Your task to perform on an android device: toggle notification dots Image 0: 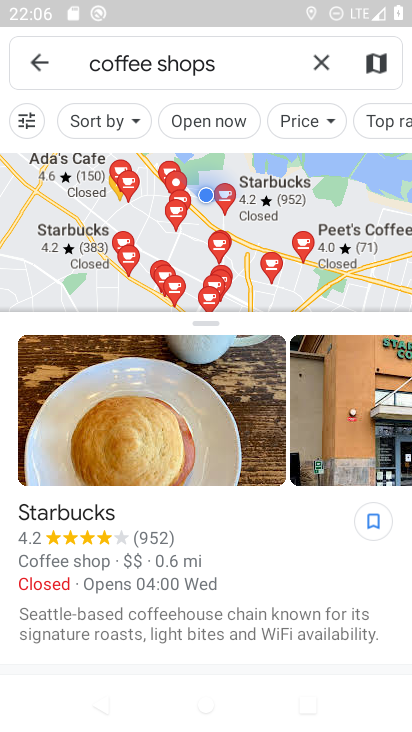
Step 0: click (321, 58)
Your task to perform on an android device: toggle notification dots Image 1: 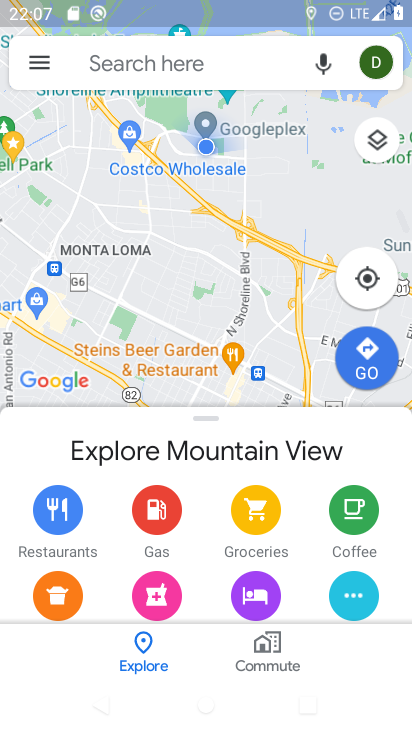
Step 1: press home button
Your task to perform on an android device: toggle notification dots Image 2: 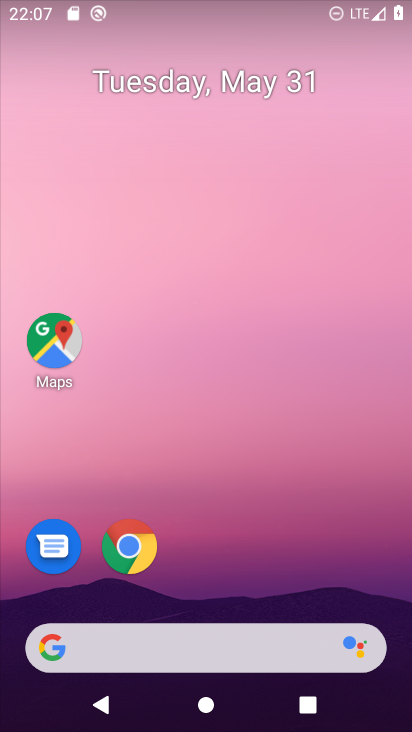
Step 2: drag from (401, 697) to (359, 209)
Your task to perform on an android device: toggle notification dots Image 3: 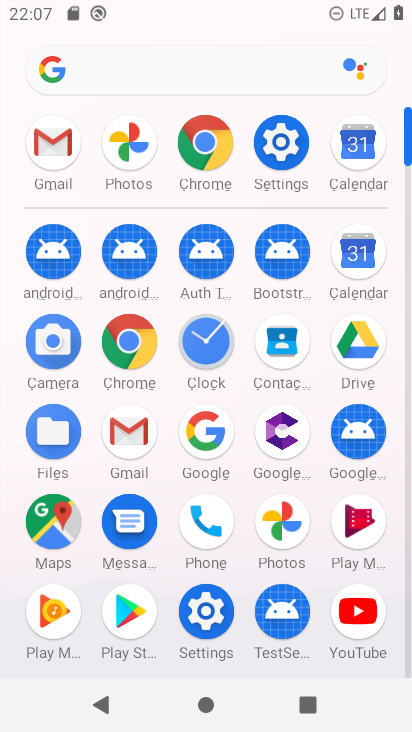
Step 3: click (280, 156)
Your task to perform on an android device: toggle notification dots Image 4: 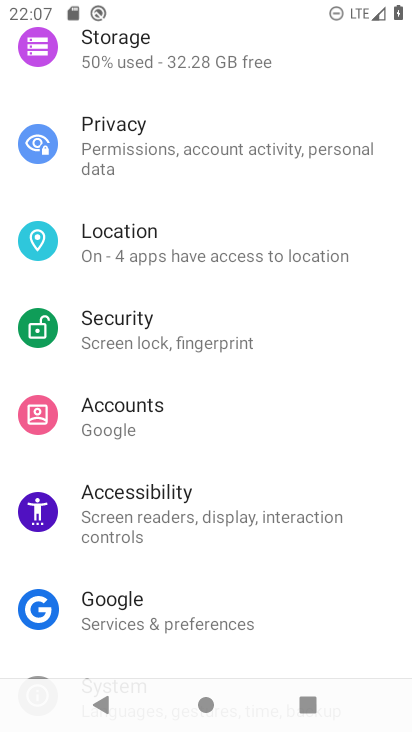
Step 4: drag from (281, 612) to (268, 312)
Your task to perform on an android device: toggle notification dots Image 5: 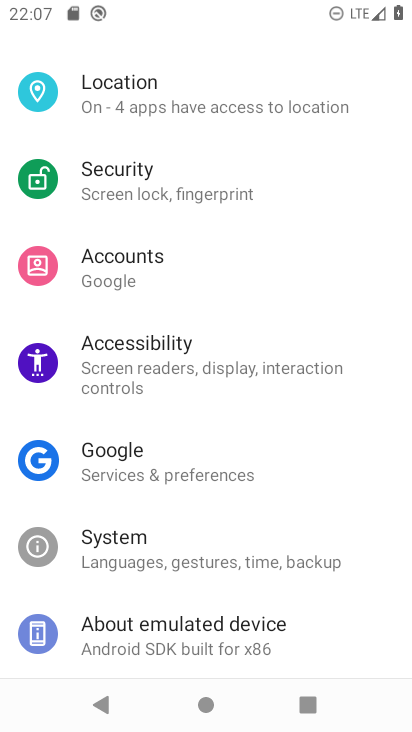
Step 5: drag from (251, 133) to (251, 560)
Your task to perform on an android device: toggle notification dots Image 6: 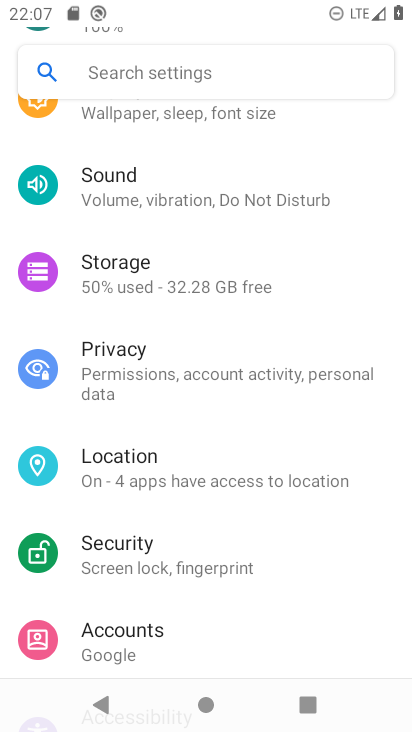
Step 6: drag from (295, 136) to (288, 597)
Your task to perform on an android device: toggle notification dots Image 7: 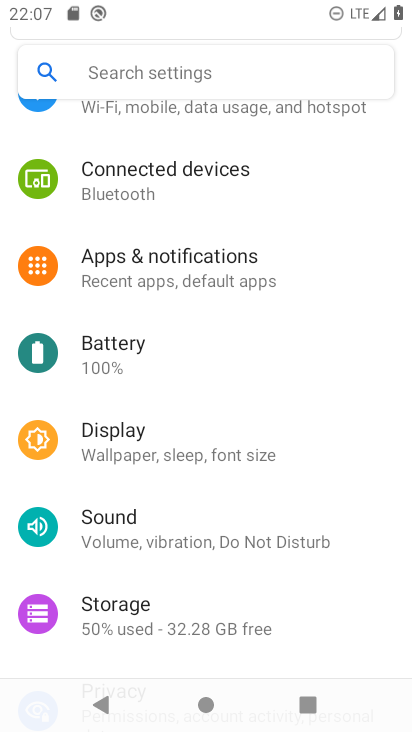
Step 7: click (139, 255)
Your task to perform on an android device: toggle notification dots Image 8: 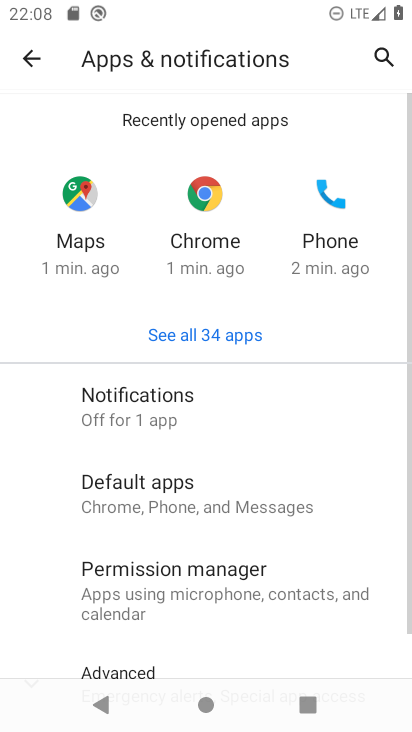
Step 8: click (113, 408)
Your task to perform on an android device: toggle notification dots Image 9: 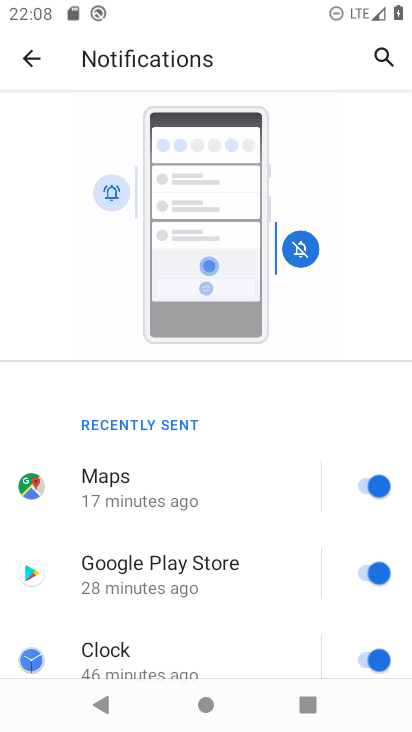
Step 9: drag from (279, 632) to (250, 239)
Your task to perform on an android device: toggle notification dots Image 10: 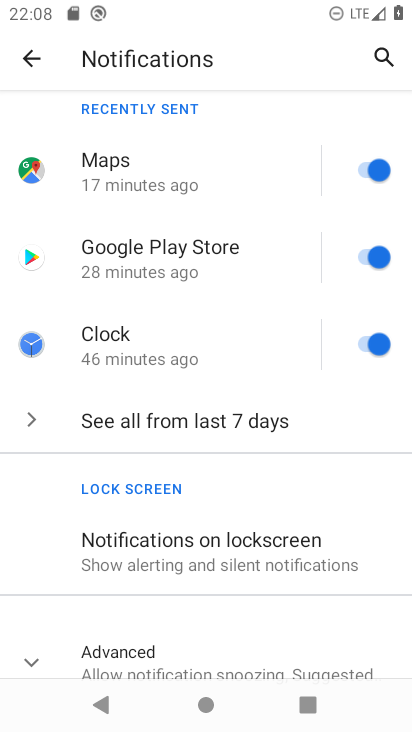
Step 10: drag from (303, 650) to (279, 298)
Your task to perform on an android device: toggle notification dots Image 11: 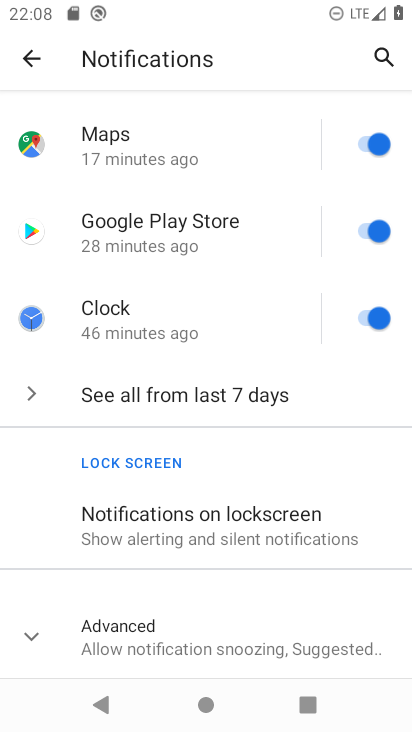
Step 11: drag from (228, 622) to (218, 374)
Your task to perform on an android device: toggle notification dots Image 12: 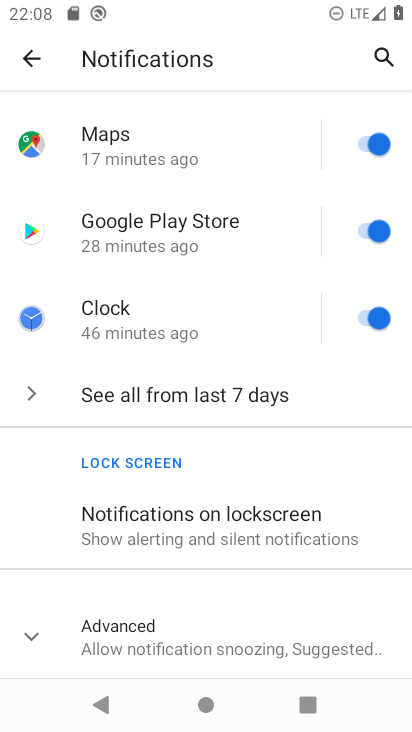
Step 12: click (29, 634)
Your task to perform on an android device: toggle notification dots Image 13: 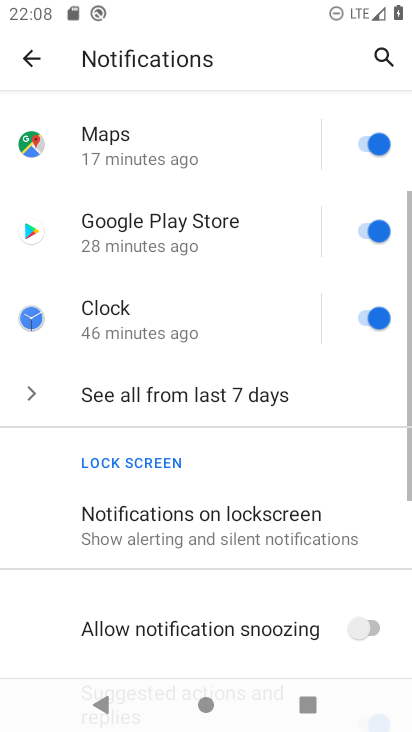
Step 13: drag from (259, 604) to (257, 306)
Your task to perform on an android device: toggle notification dots Image 14: 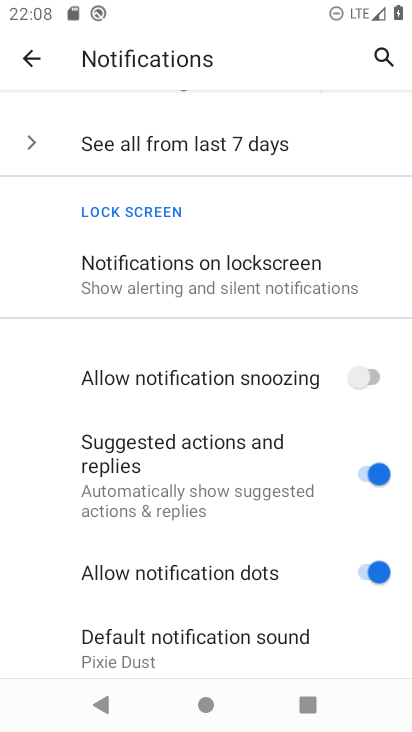
Step 14: click (362, 571)
Your task to perform on an android device: toggle notification dots Image 15: 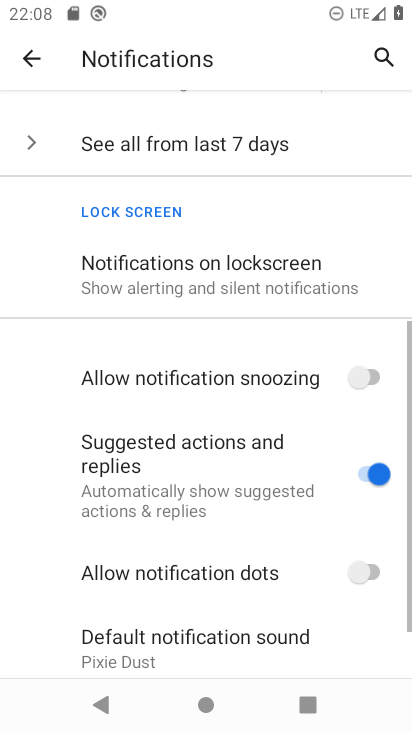
Step 15: task complete